Your task to perform on an android device: What's on my calendar today? Image 0: 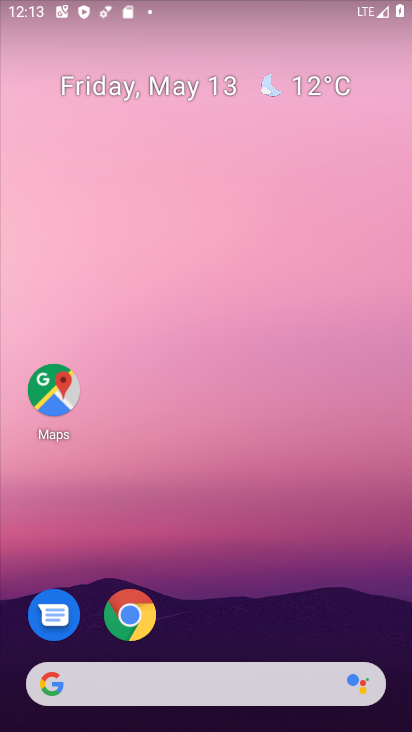
Step 0: drag from (259, 574) to (266, 187)
Your task to perform on an android device: What's on my calendar today? Image 1: 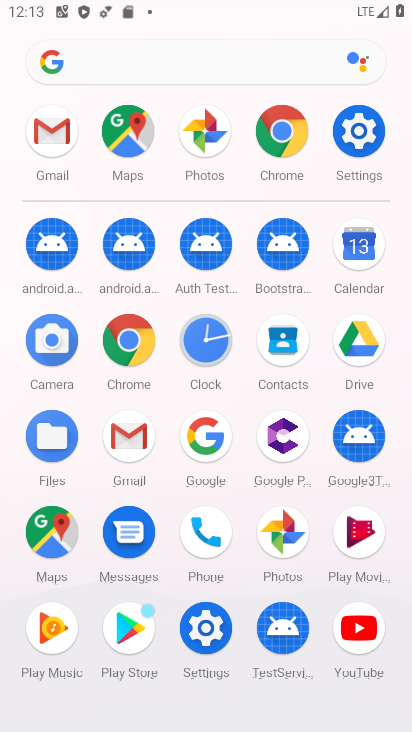
Step 1: click (341, 256)
Your task to perform on an android device: What's on my calendar today? Image 2: 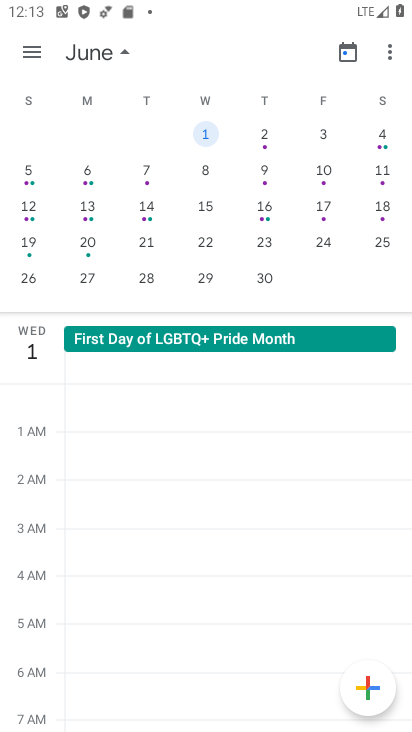
Step 2: click (210, 130)
Your task to perform on an android device: What's on my calendar today? Image 3: 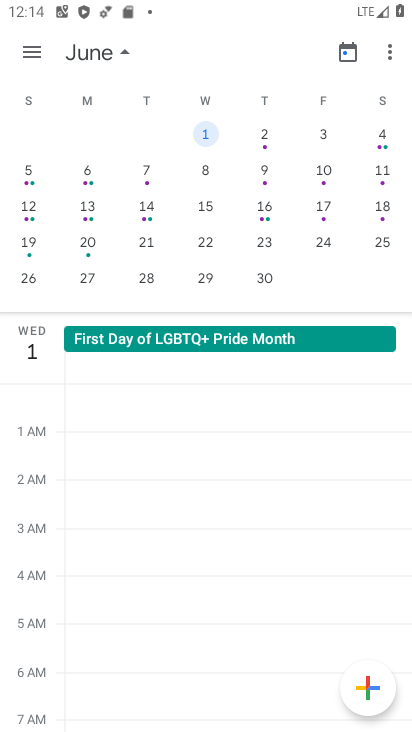
Step 3: task complete